Your task to perform on an android device: change keyboard looks Image 0: 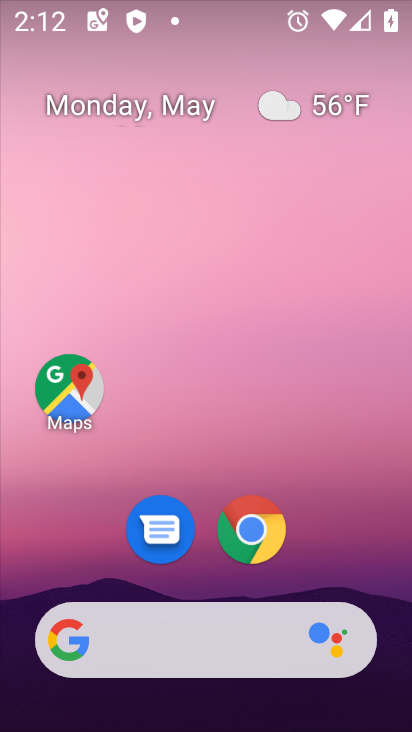
Step 0: drag from (327, 556) to (309, 76)
Your task to perform on an android device: change keyboard looks Image 1: 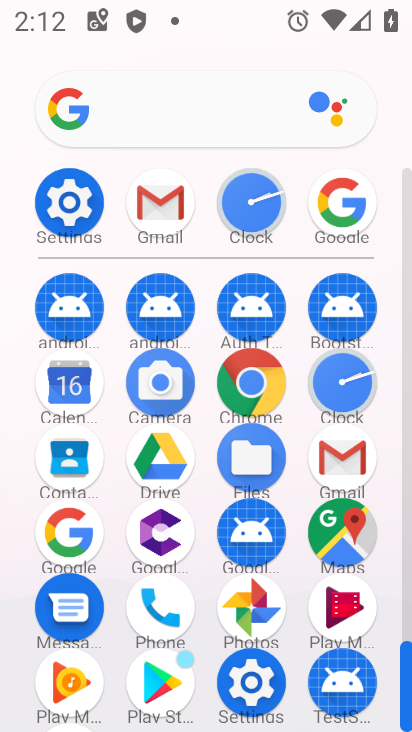
Step 1: click (84, 212)
Your task to perform on an android device: change keyboard looks Image 2: 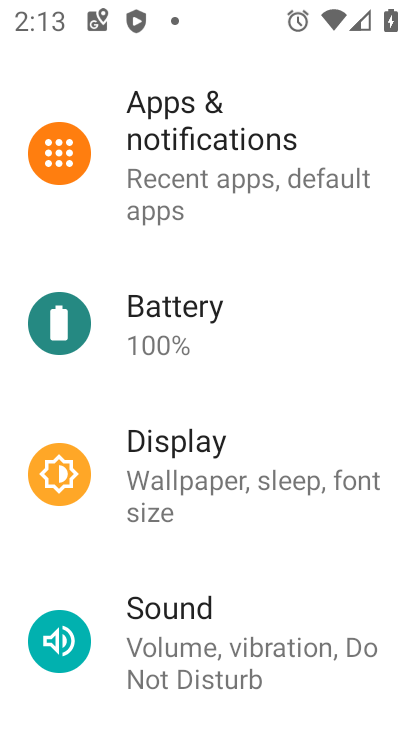
Step 2: drag from (167, 638) to (231, 261)
Your task to perform on an android device: change keyboard looks Image 3: 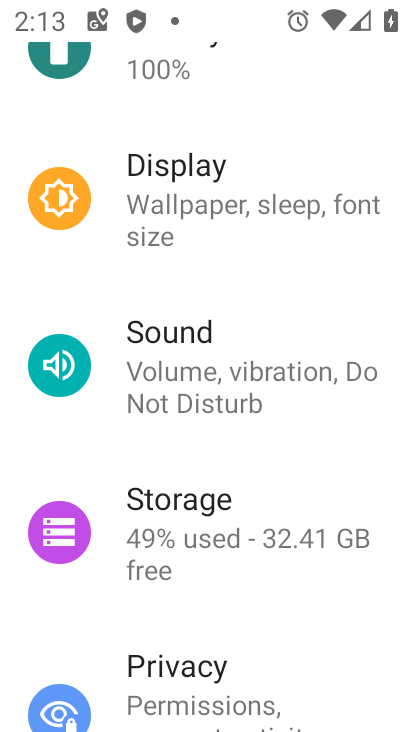
Step 3: drag from (235, 526) to (317, 237)
Your task to perform on an android device: change keyboard looks Image 4: 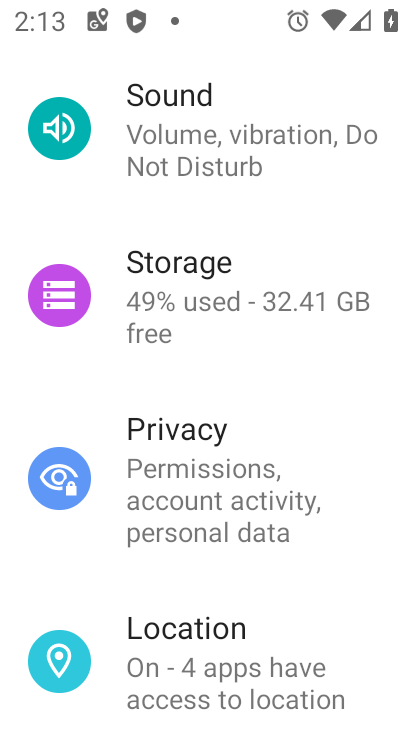
Step 4: drag from (296, 595) to (306, 339)
Your task to perform on an android device: change keyboard looks Image 5: 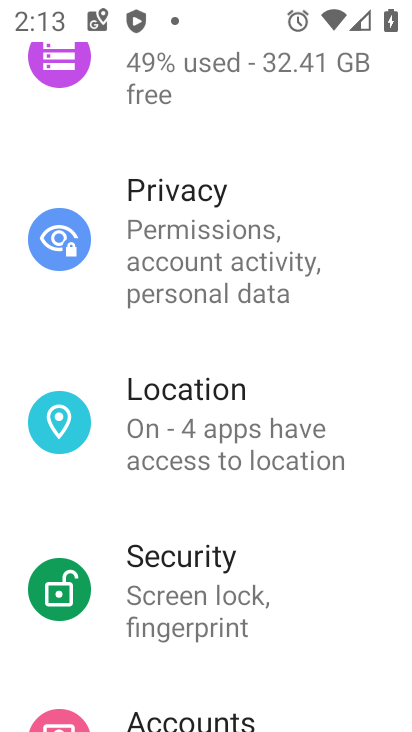
Step 5: drag from (273, 654) to (244, 386)
Your task to perform on an android device: change keyboard looks Image 6: 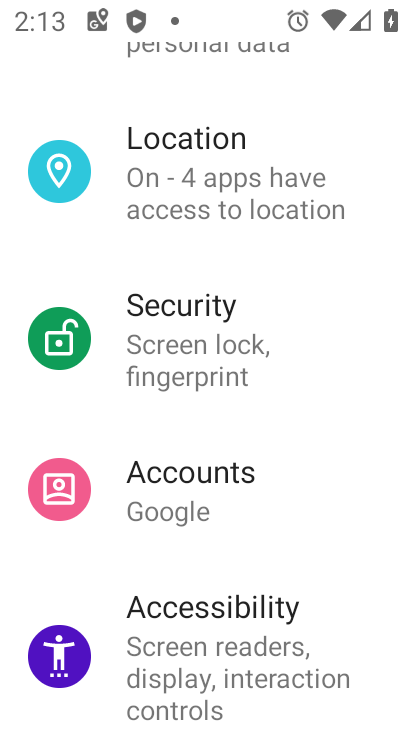
Step 6: drag from (266, 619) to (262, 420)
Your task to perform on an android device: change keyboard looks Image 7: 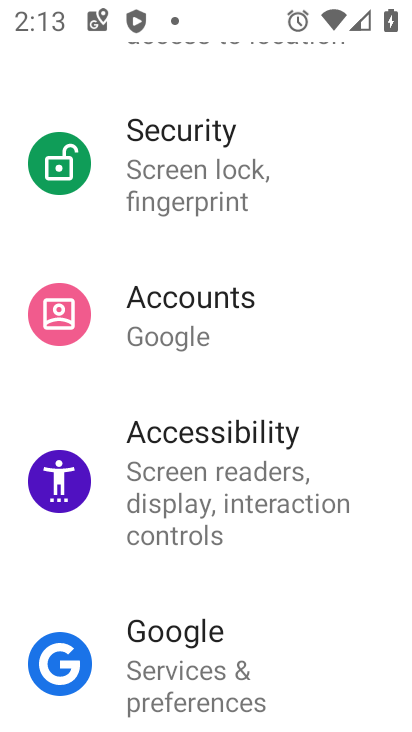
Step 7: drag from (226, 608) to (236, 162)
Your task to perform on an android device: change keyboard looks Image 8: 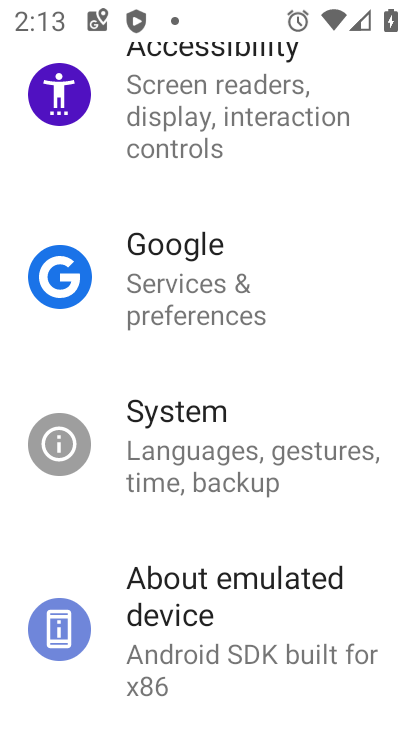
Step 8: click (286, 466)
Your task to perform on an android device: change keyboard looks Image 9: 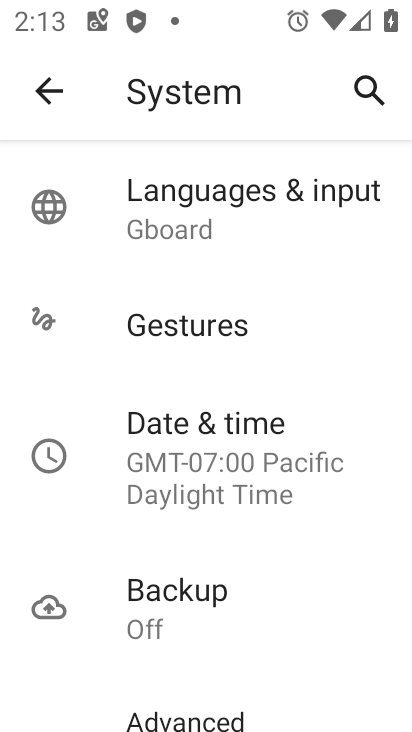
Step 9: click (201, 193)
Your task to perform on an android device: change keyboard looks Image 10: 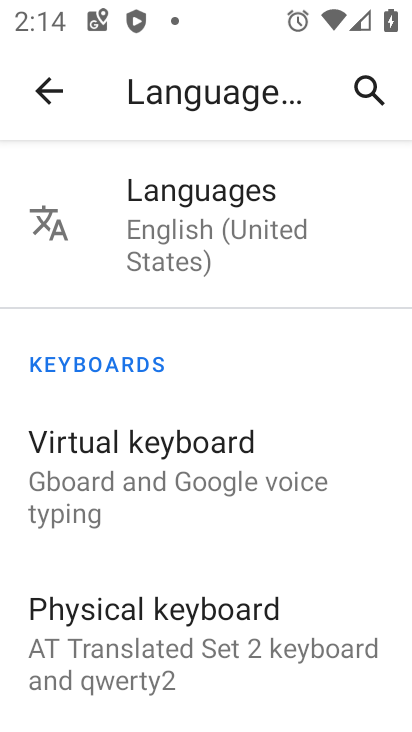
Step 10: click (196, 465)
Your task to perform on an android device: change keyboard looks Image 11: 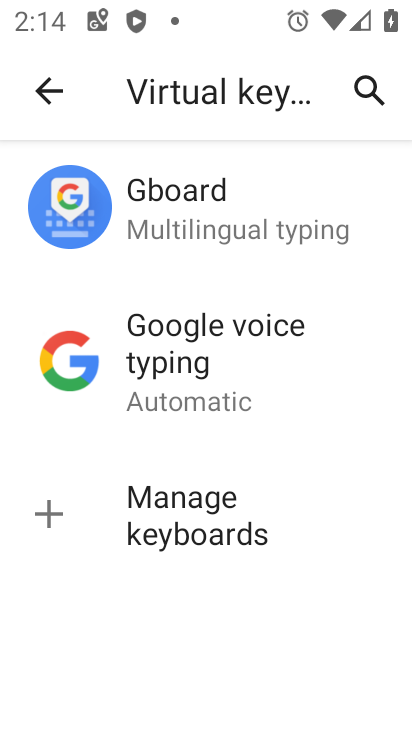
Step 11: click (217, 218)
Your task to perform on an android device: change keyboard looks Image 12: 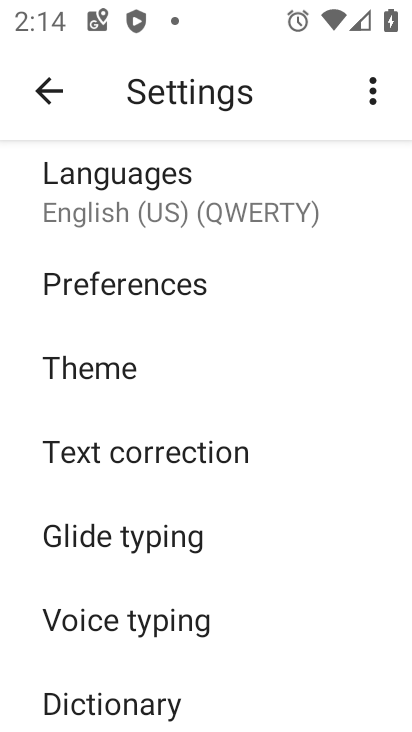
Step 12: click (206, 377)
Your task to perform on an android device: change keyboard looks Image 13: 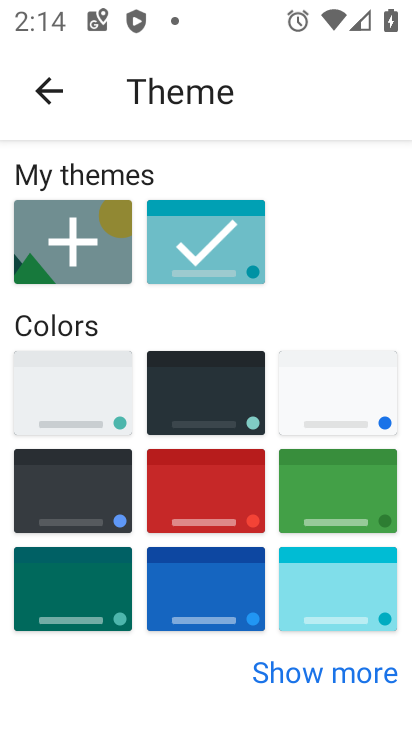
Step 13: click (198, 629)
Your task to perform on an android device: change keyboard looks Image 14: 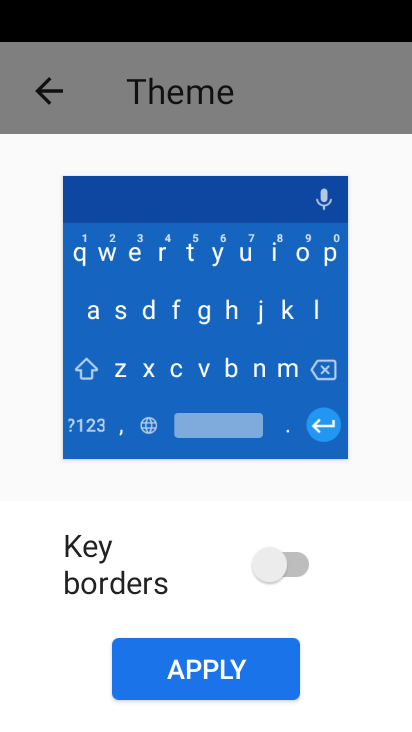
Step 14: click (215, 682)
Your task to perform on an android device: change keyboard looks Image 15: 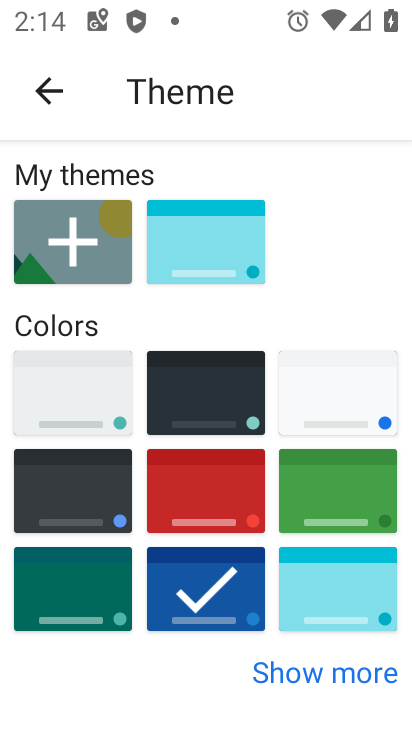
Step 15: task complete